Your task to perform on an android device: turn on notifications settings in the gmail app Image 0: 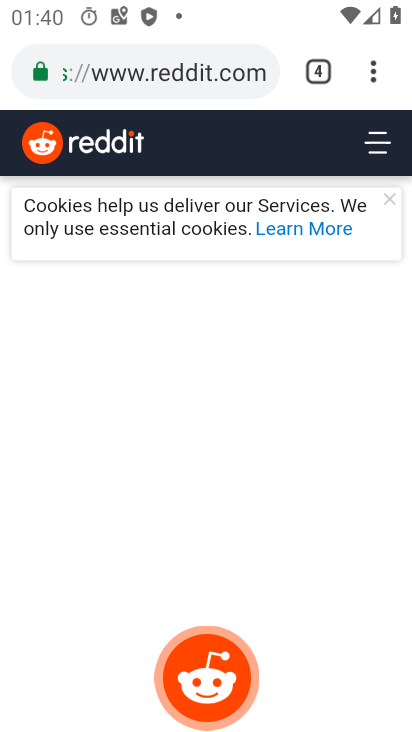
Step 0: press home button
Your task to perform on an android device: turn on notifications settings in the gmail app Image 1: 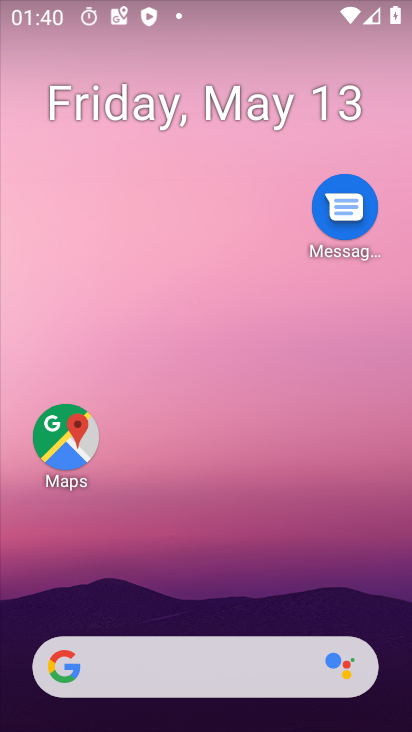
Step 1: drag from (305, 576) to (266, 46)
Your task to perform on an android device: turn on notifications settings in the gmail app Image 2: 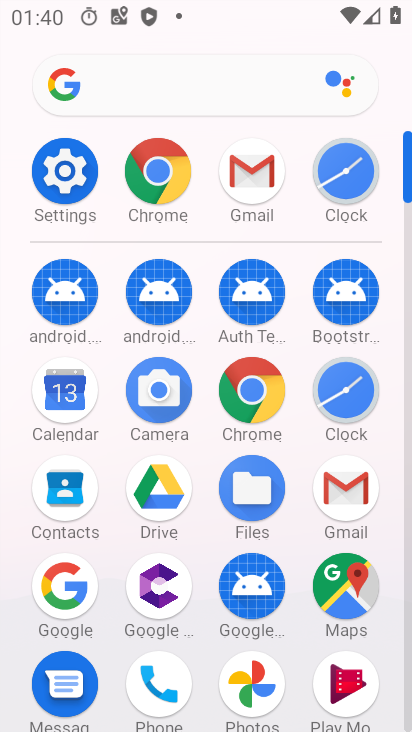
Step 2: click (342, 479)
Your task to perform on an android device: turn on notifications settings in the gmail app Image 3: 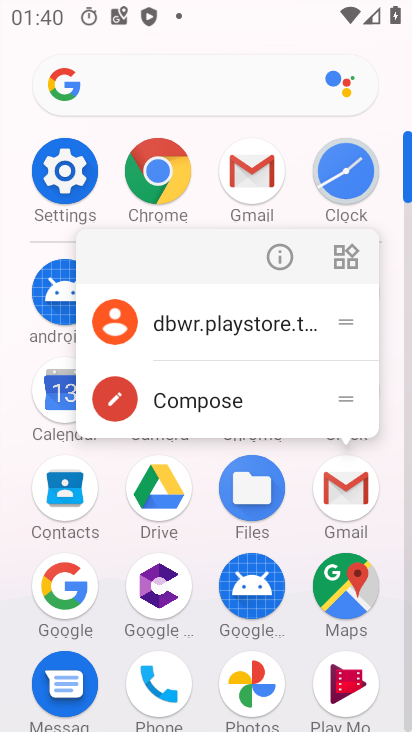
Step 3: click (286, 251)
Your task to perform on an android device: turn on notifications settings in the gmail app Image 4: 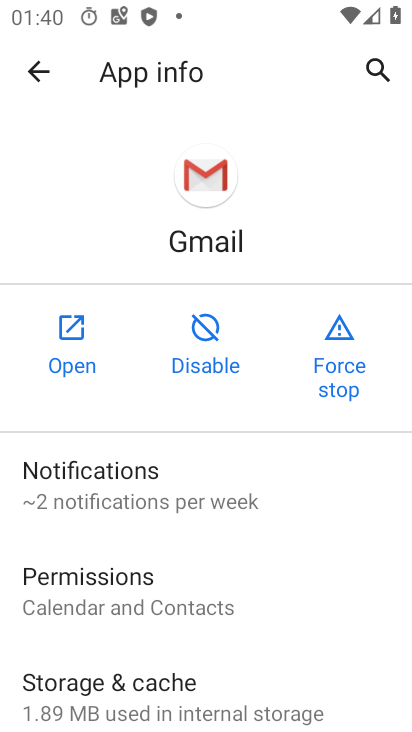
Step 4: click (150, 483)
Your task to perform on an android device: turn on notifications settings in the gmail app Image 5: 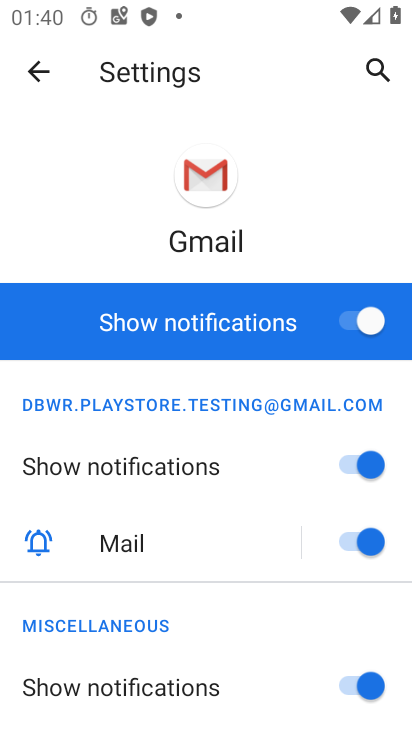
Step 5: task complete